Your task to perform on an android device: Open a new Chrome incognito tab Image 0: 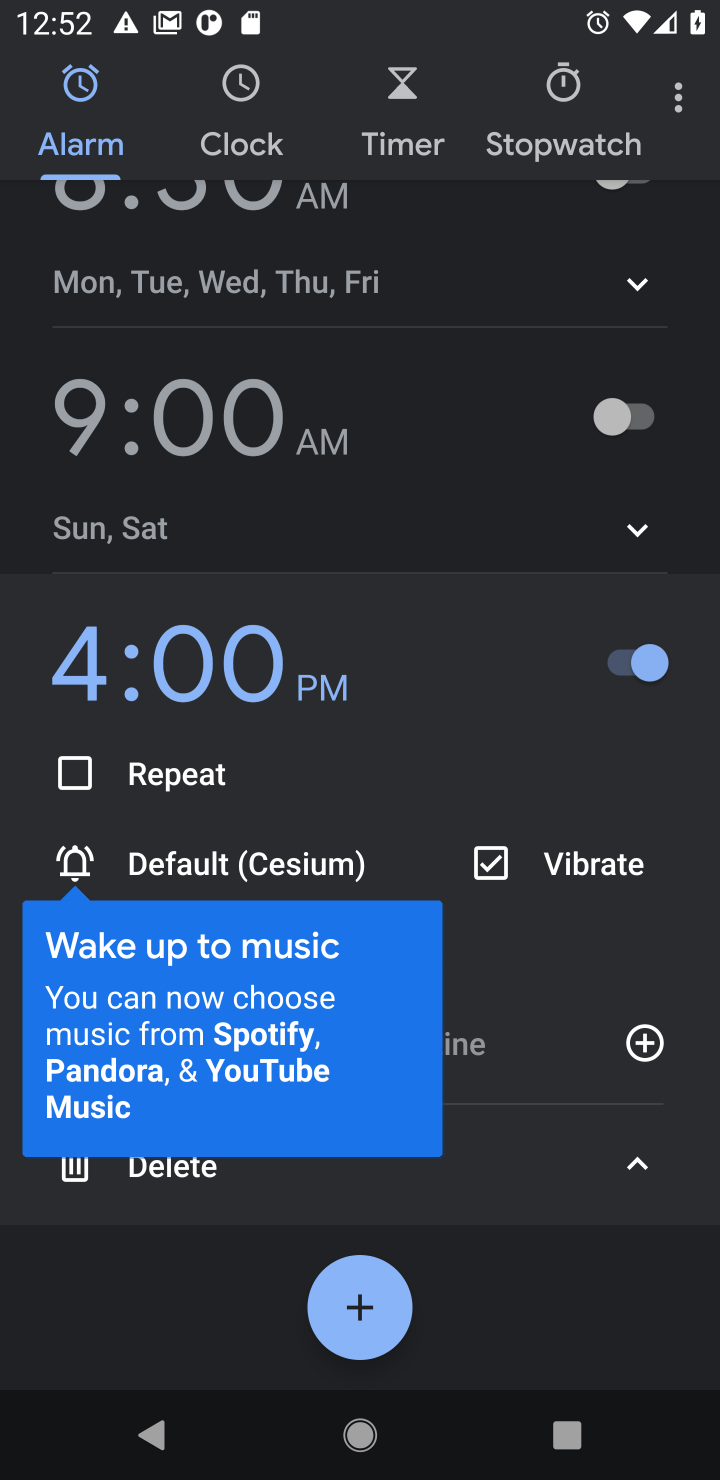
Step 0: press home button
Your task to perform on an android device: Open a new Chrome incognito tab Image 1: 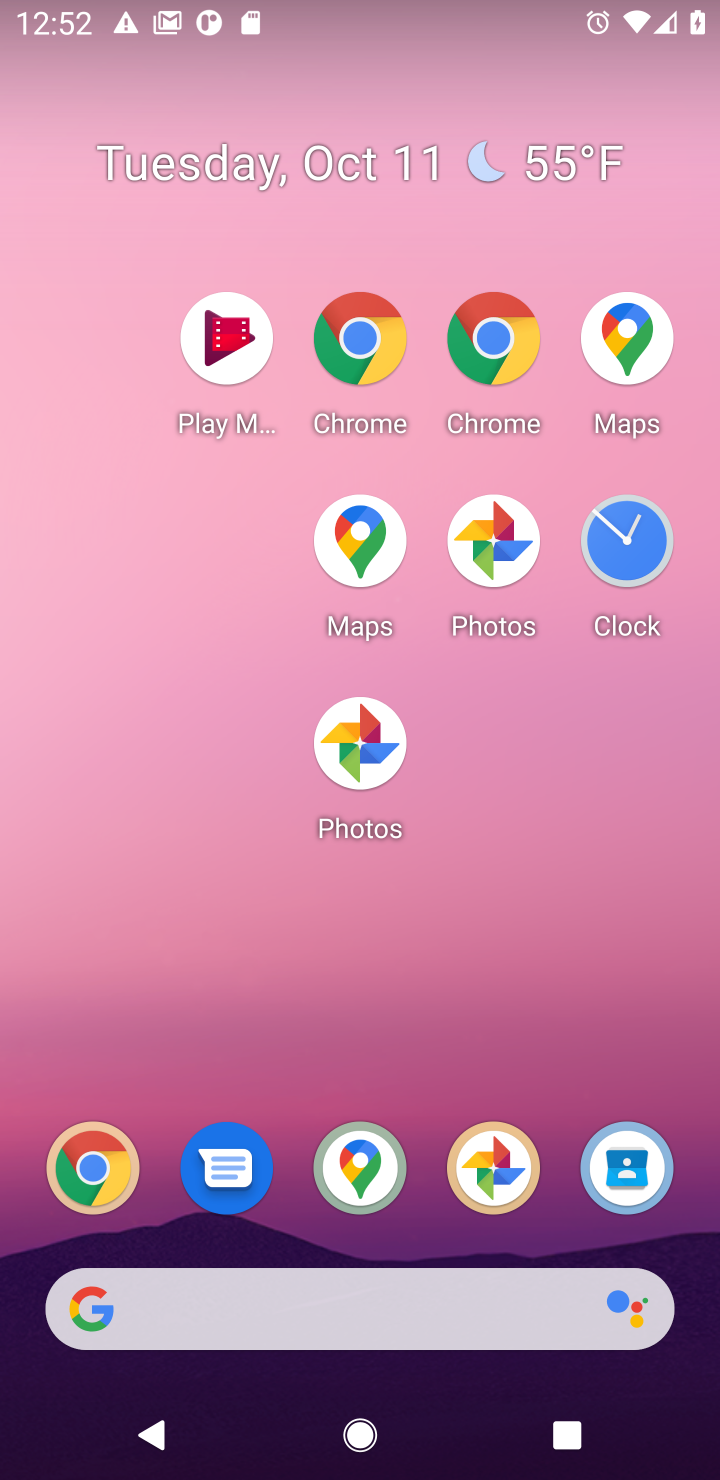
Step 1: click (89, 1187)
Your task to perform on an android device: Open a new Chrome incognito tab Image 2: 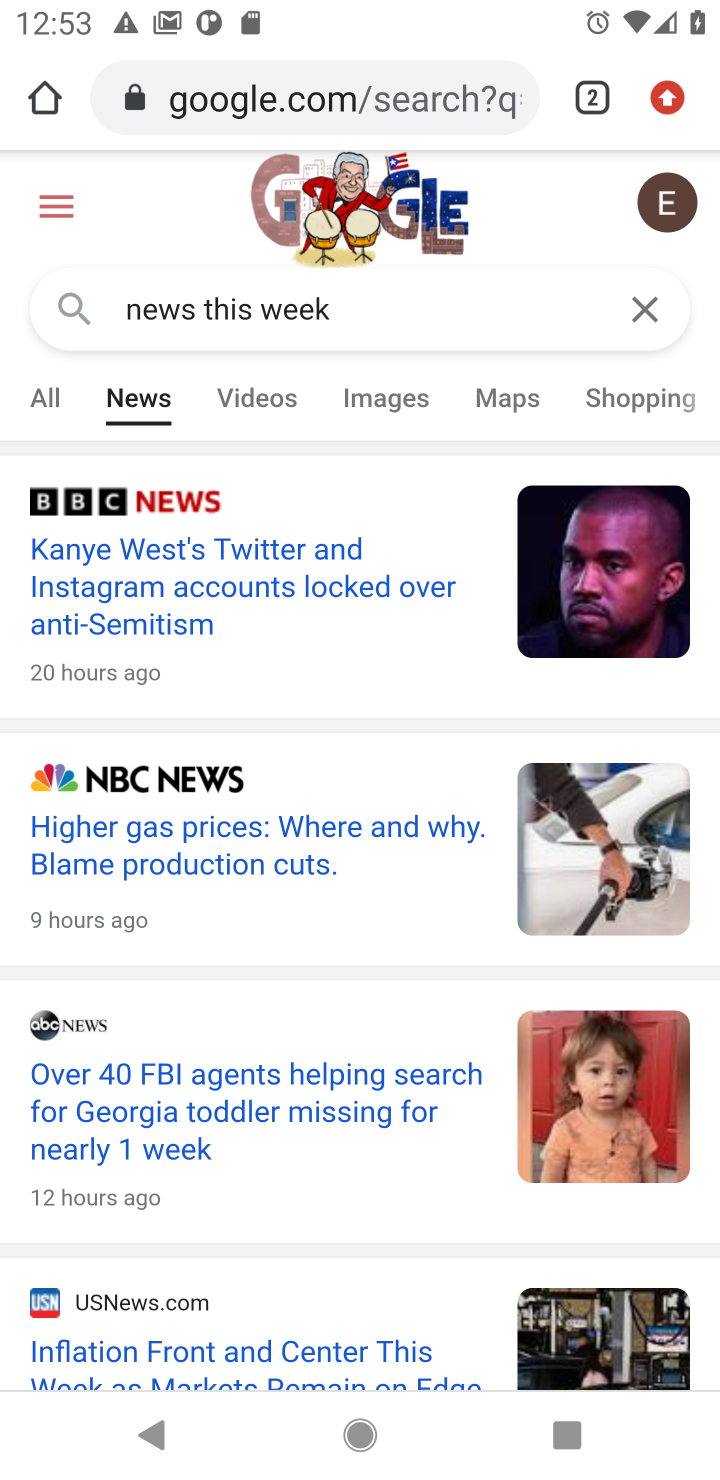
Step 2: click (671, 96)
Your task to perform on an android device: Open a new Chrome incognito tab Image 3: 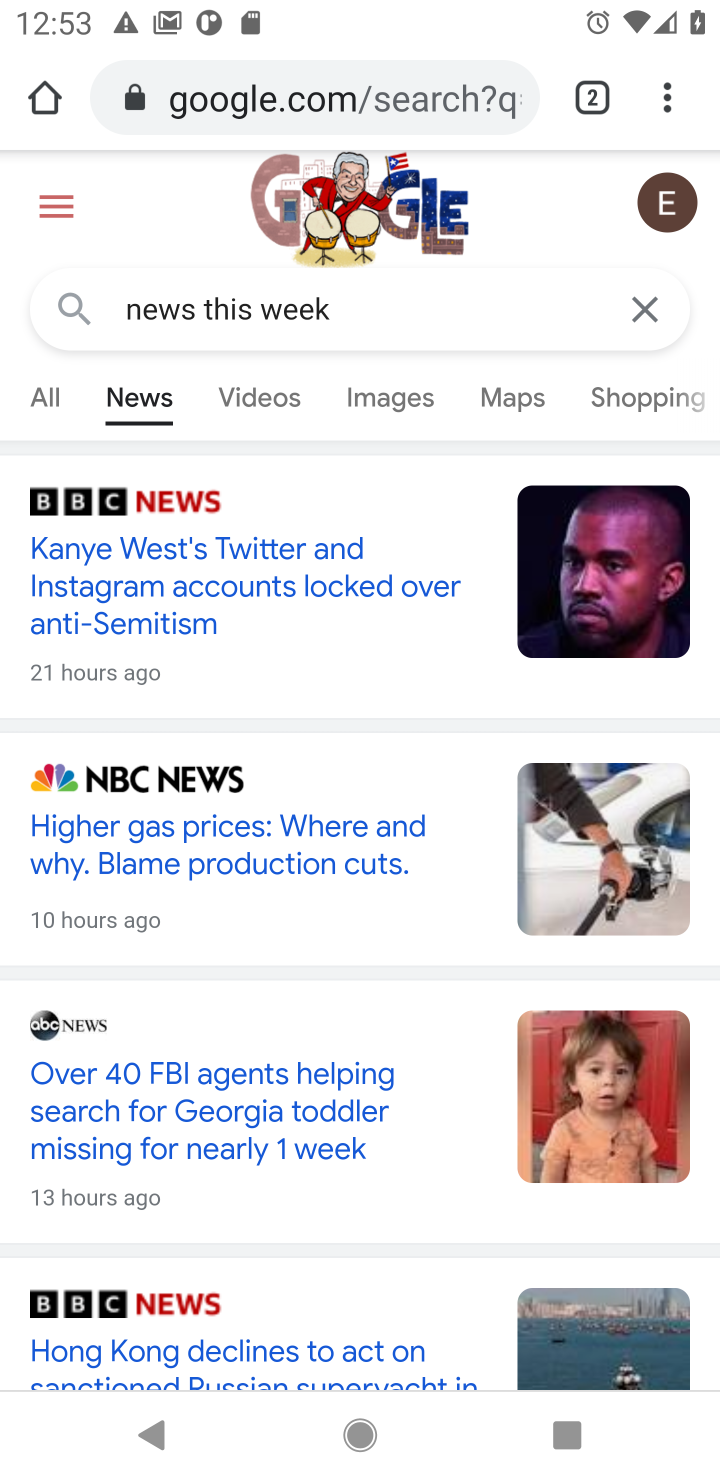
Step 3: click (659, 111)
Your task to perform on an android device: Open a new Chrome incognito tab Image 4: 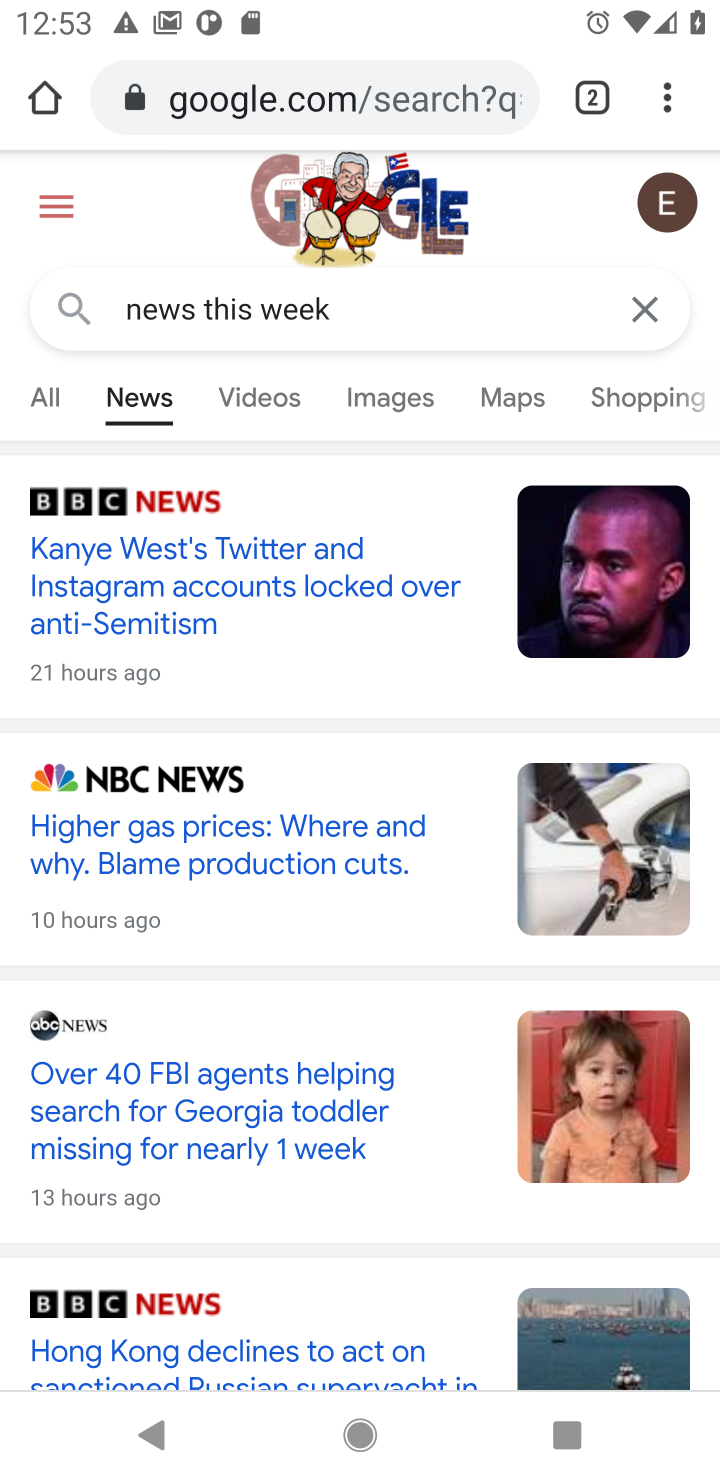
Step 4: click (672, 119)
Your task to perform on an android device: Open a new Chrome incognito tab Image 5: 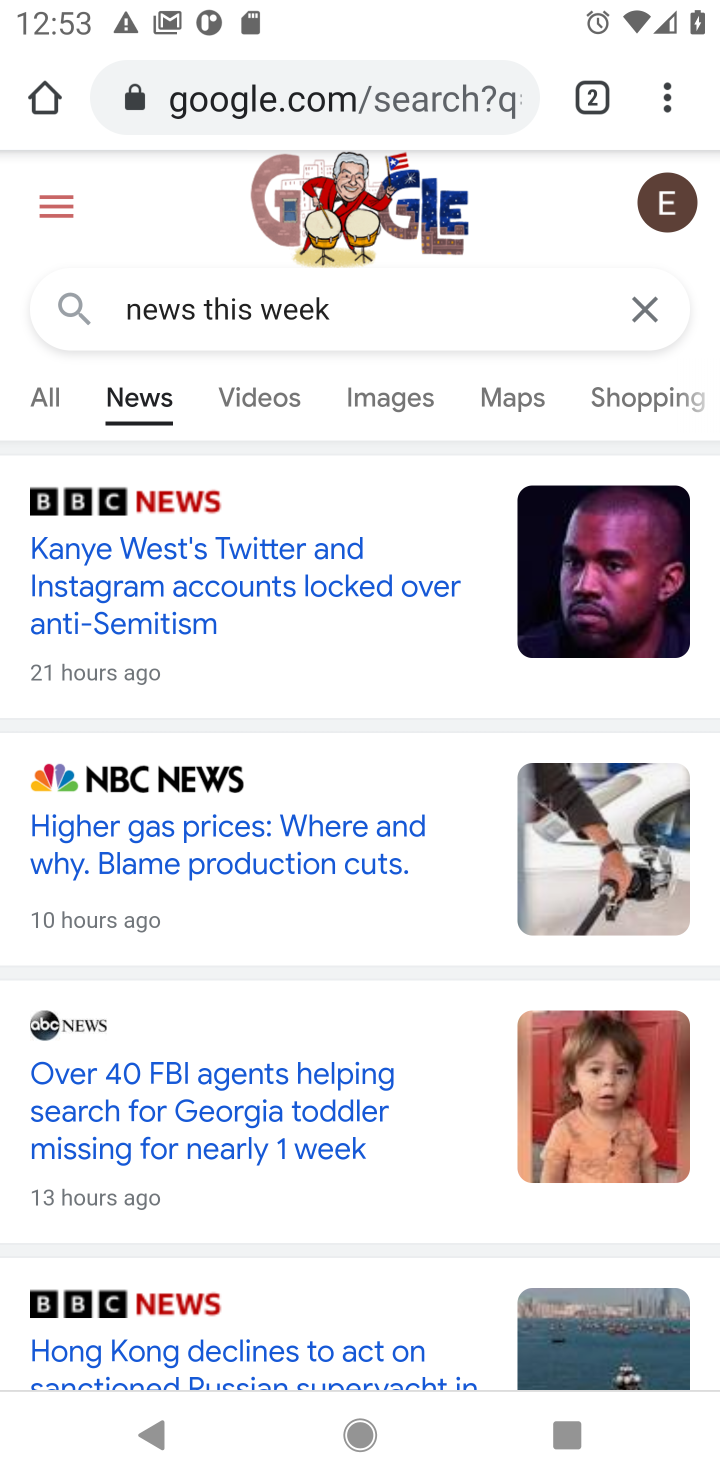
Step 5: click (667, 114)
Your task to perform on an android device: Open a new Chrome incognito tab Image 6: 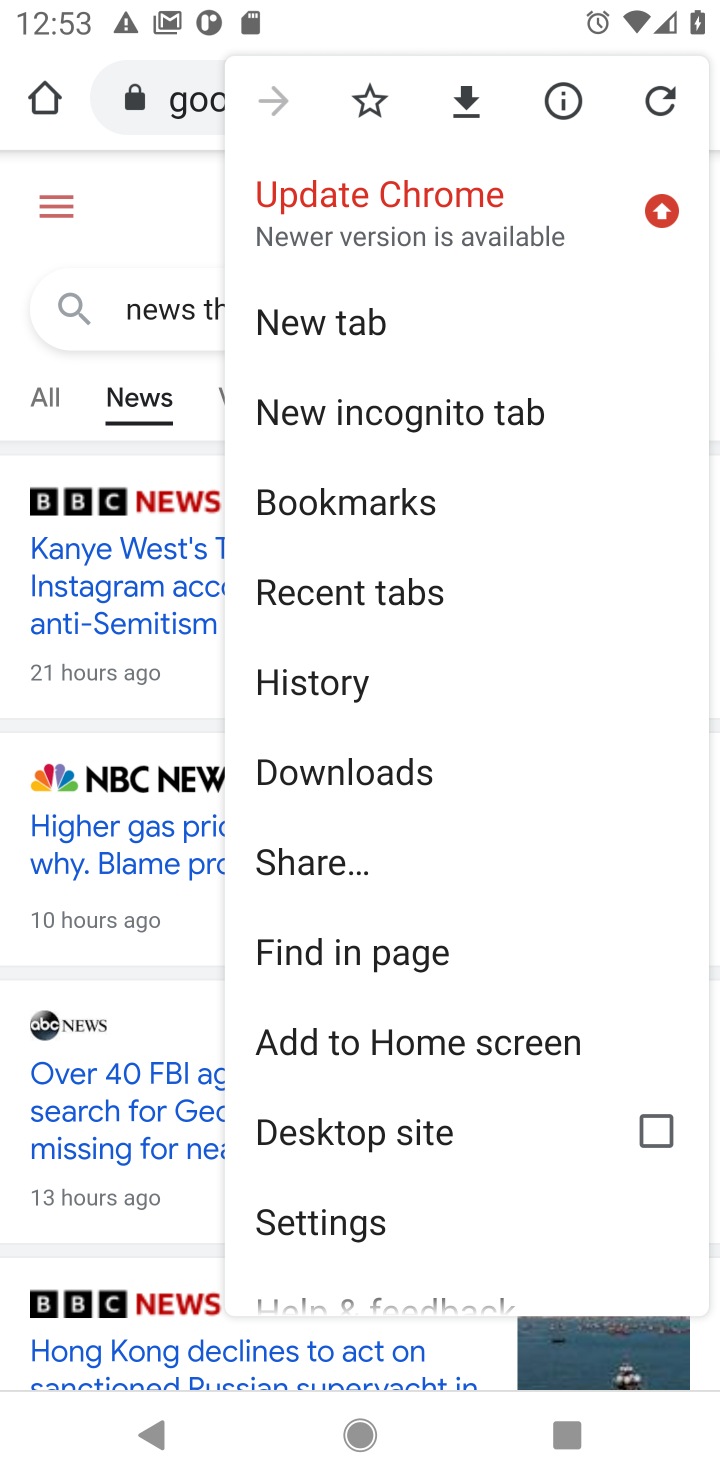
Step 6: click (420, 417)
Your task to perform on an android device: Open a new Chrome incognito tab Image 7: 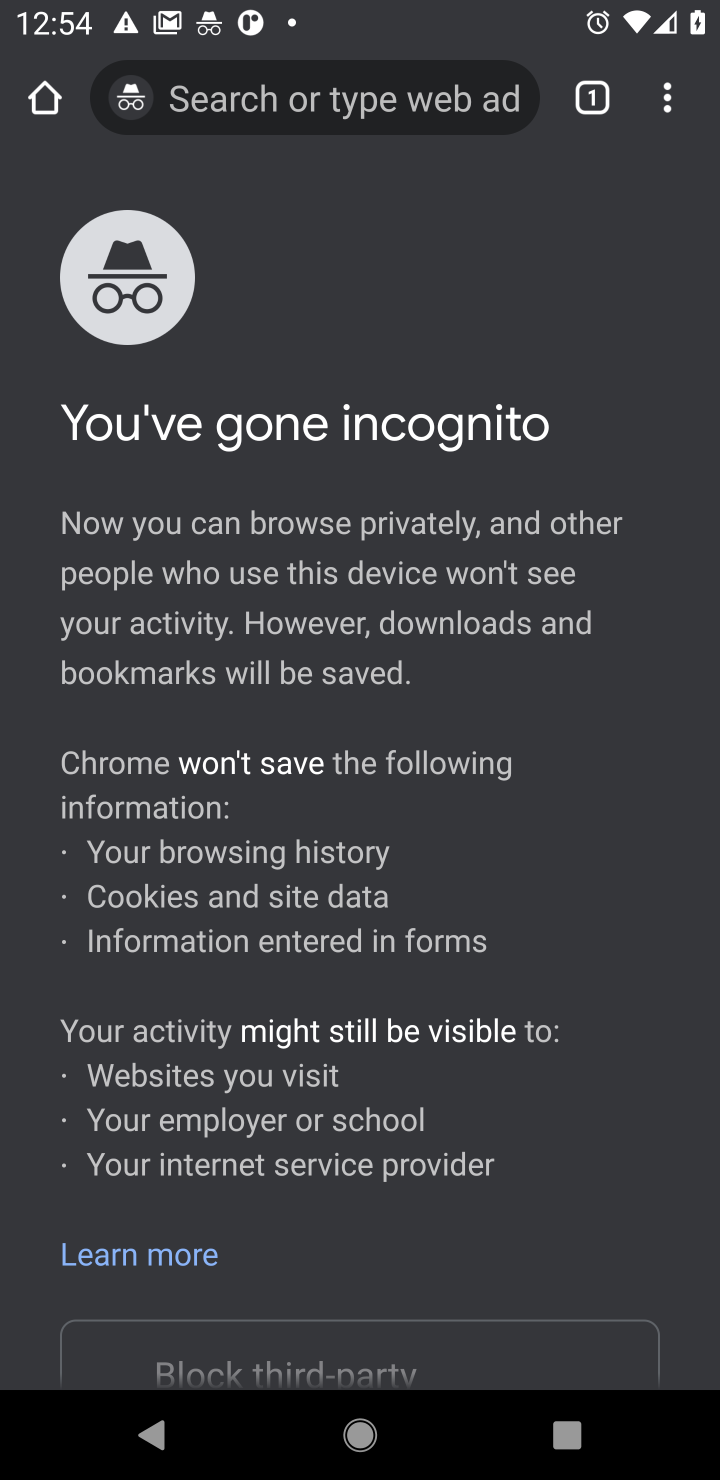
Step 7: task complete